Your task to perform on an android device: delete the emails in spam in the gmail app Image 0: 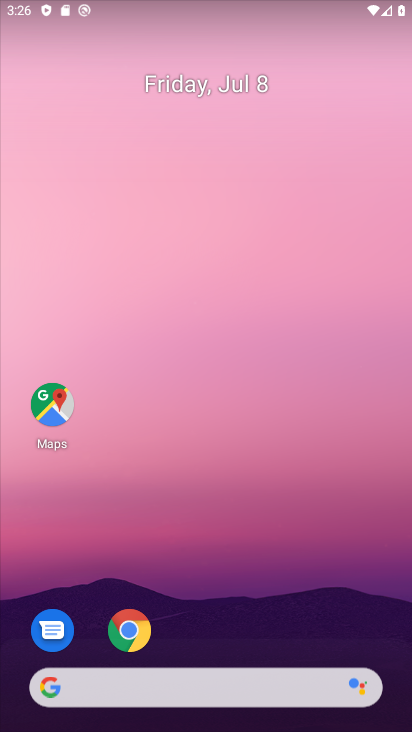
Step 0: drag from (306, 600) to (252, 40)
Your task to perform on an android device: delete the emails in spam in the gmail app Image 1: 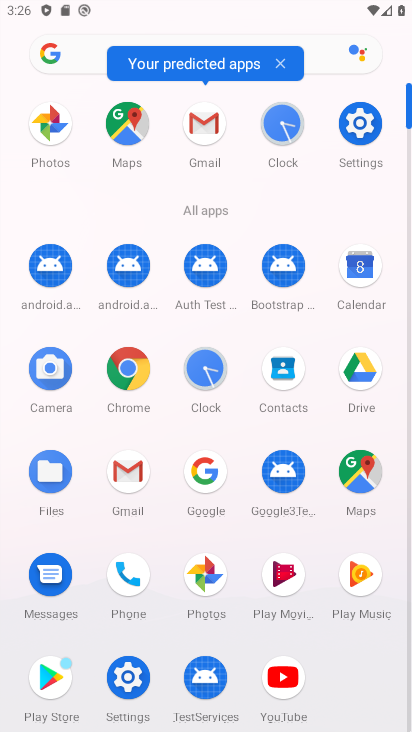
Step 1: click (203, 119)
Your task to perform on an android device: delete the emails in spam in the gmail app Image 2: 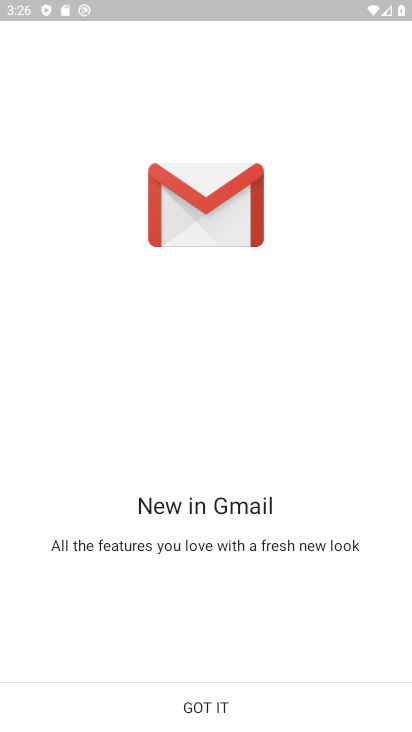
Step 2: click (230, 702)
Your task to perform on an android device: delete the emails in spam in the gmail app Image 3: 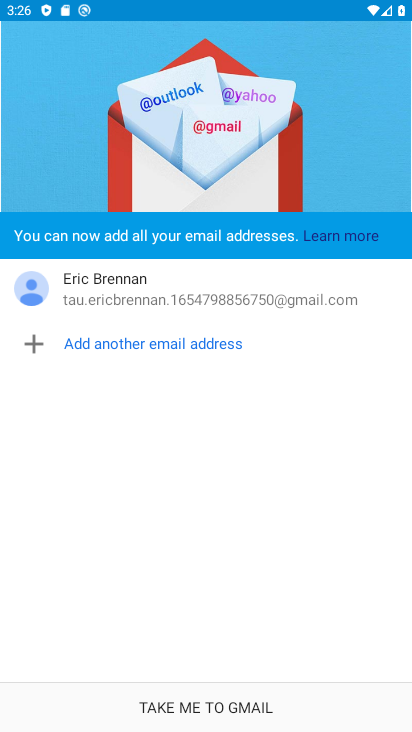
Step 3: click (230, 702)
Your task to perform on an android device: delete the emails in spam in the gmail app Image 4: 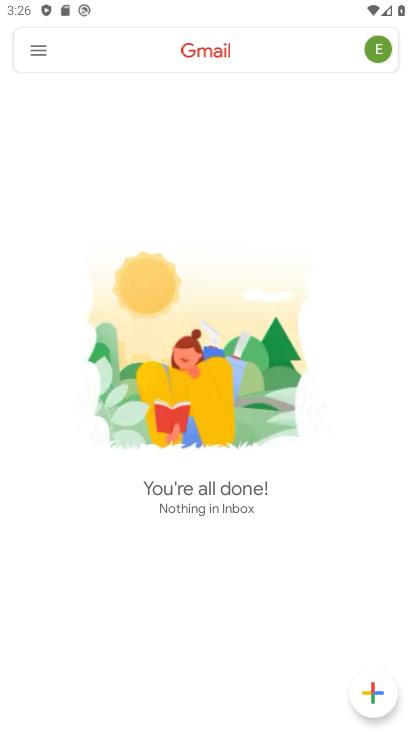
Step 4: click (37, 47)
Your task to perform on an android device: delete the emails in spam in the gmail app Image 5: 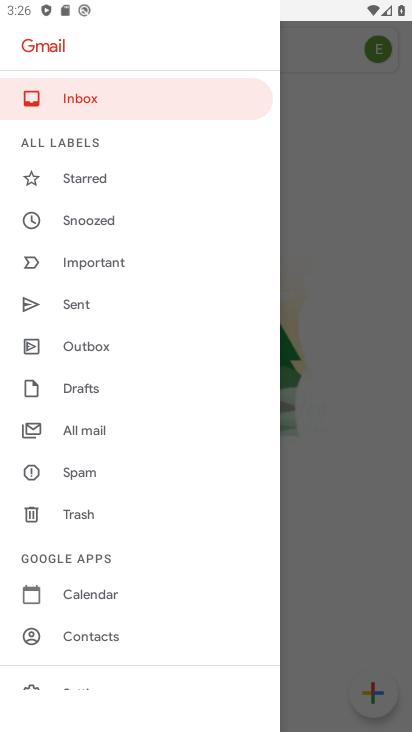
Step 5: click (91, 473)
Your task to perform on an android device: delete the emails in spam in the gmail app Image 6: 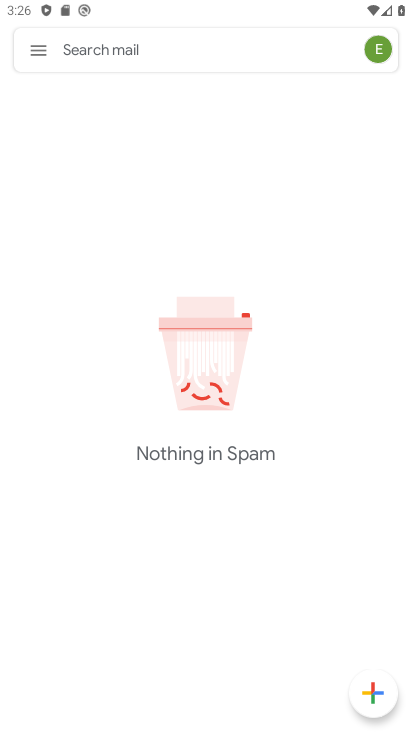
Step 6: task complete